Your task to perform on an android device: toggle wifi Image 0: 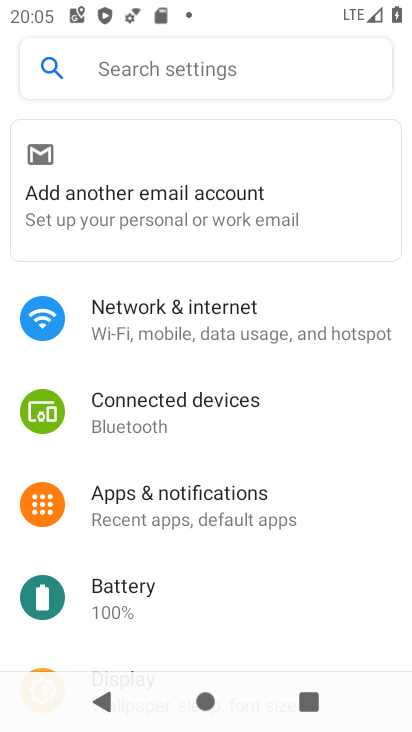
Step 0: press home button
Your task to perform on an android device: toggle wifi Image 1: 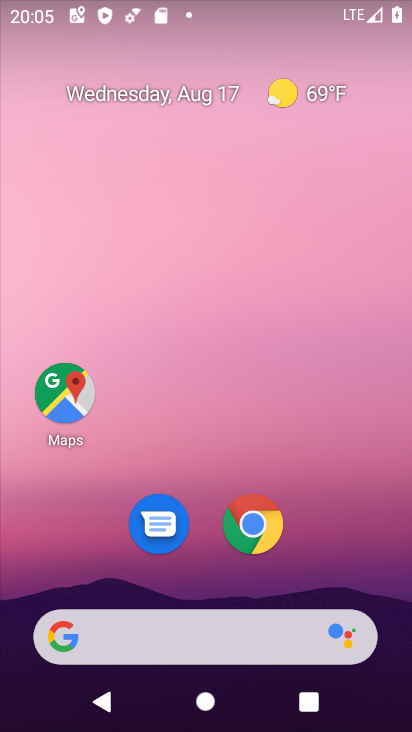
Step 1: drag from (212, 443) to (227, 1)
Your task to perform on an android device: toggle wifi Image 2: 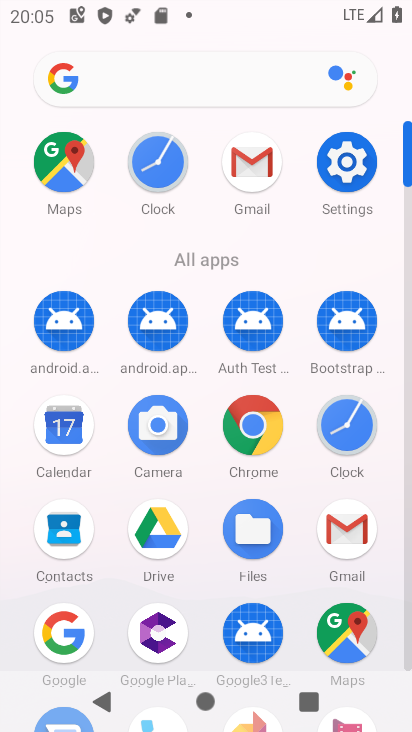
Step 2: click (341, 160)
Your task to perform on an android device: toggle wifi Image 3: 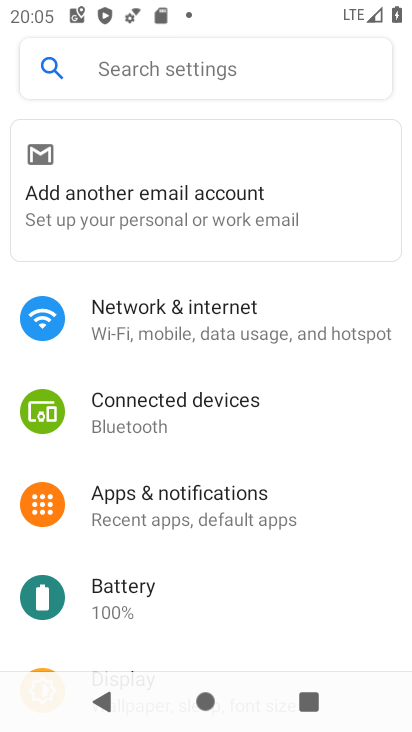
Step 3: click (220, 325)
Your task to perform on an android device: toggle wifi Image 4: 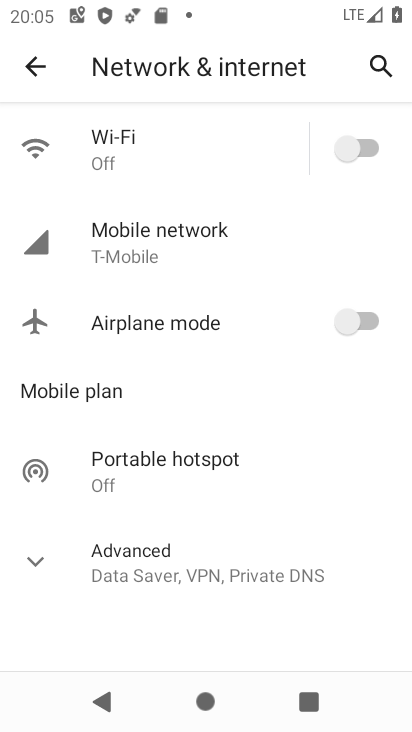
Step 4: click (367, 149)
Your task to perform on an android device: toggle wifi Image 5: 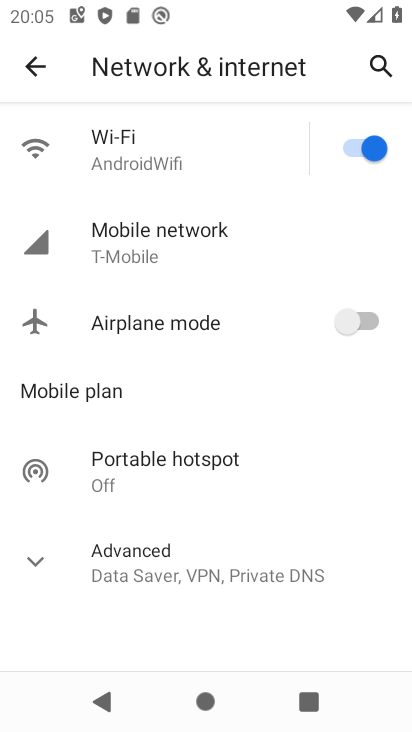
Step 5: task complete